Your task to perform on an android device: Go to Android settings Image 0: 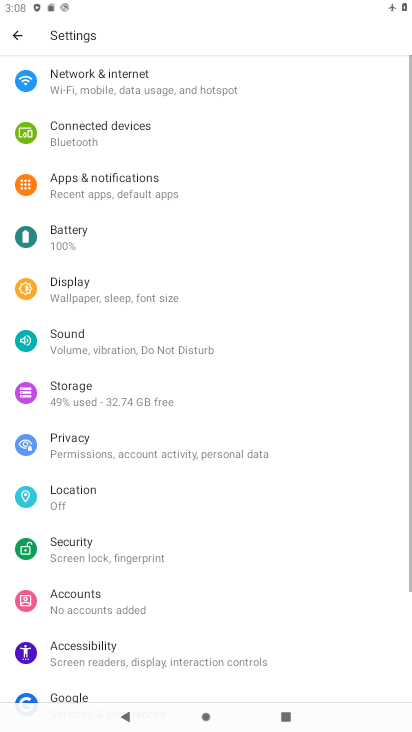
Step 0: drag from (264, 633) to (275, 197)
Your task to perform on an android device: Go to Android settings Image 1: 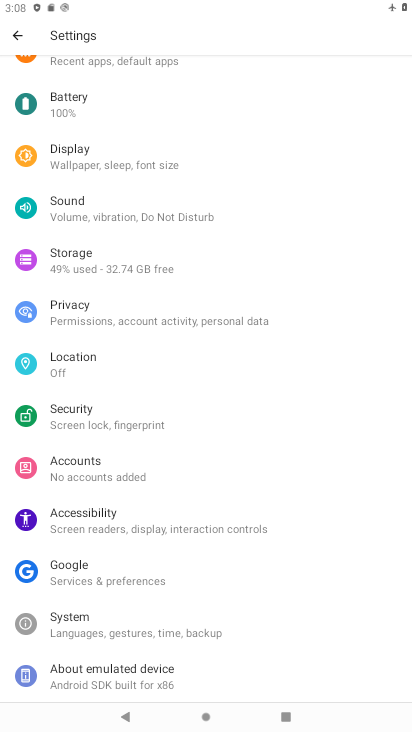
Step 1: task complete